Your task to perform on an android device: set the stopwatch Image 0: 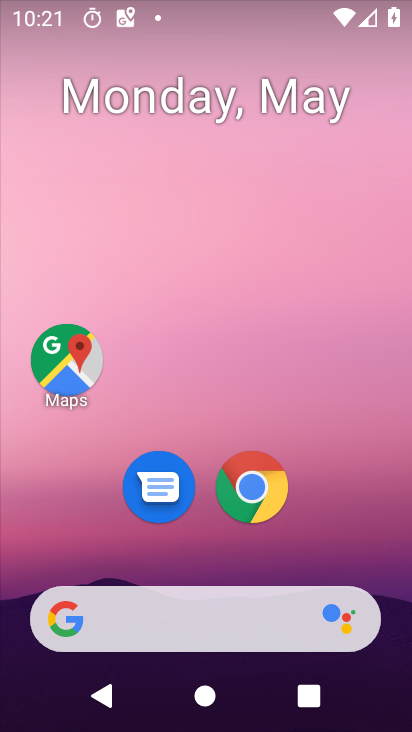
Step 0: drag from (334, 523) to (335, 59)
Your task to perform on an android device: set the stopwatch Image 1: 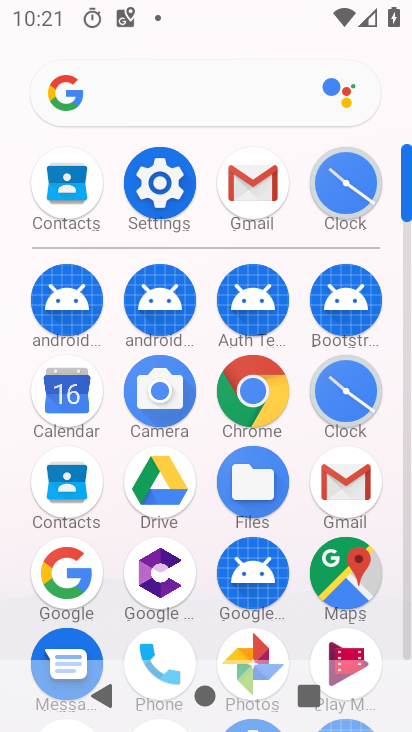
Step 1: click (334, 398)
Your task to perform on an android device: set the stopwatch Image 2: 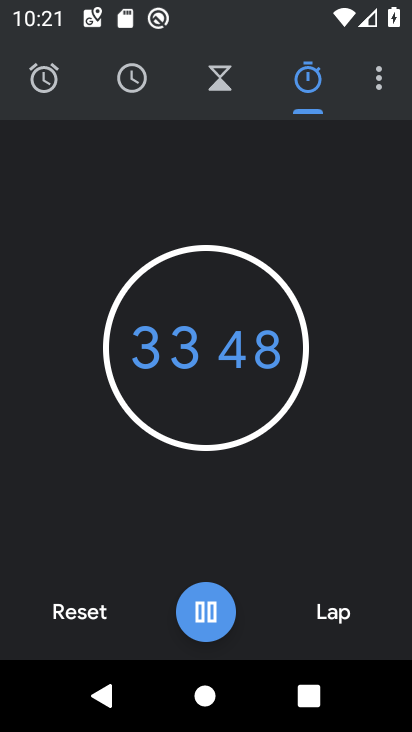
Step 2: click (77, 612)
Your task to perform on an android device: set the stopwatch Image 3: 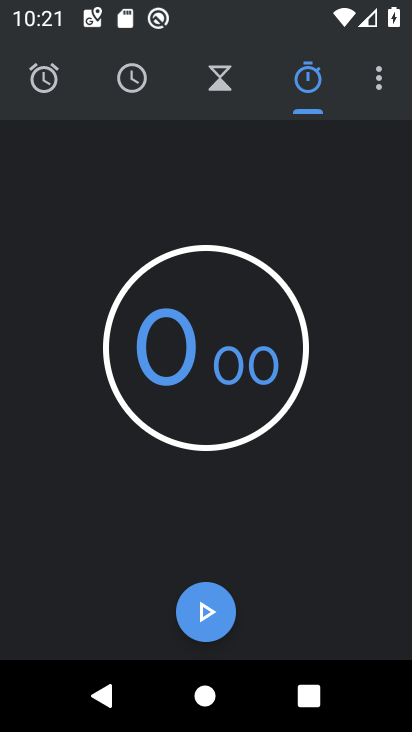
Step 3: click (177, 616)
Your task to perform on an android device: set the stopwatch Image 4: 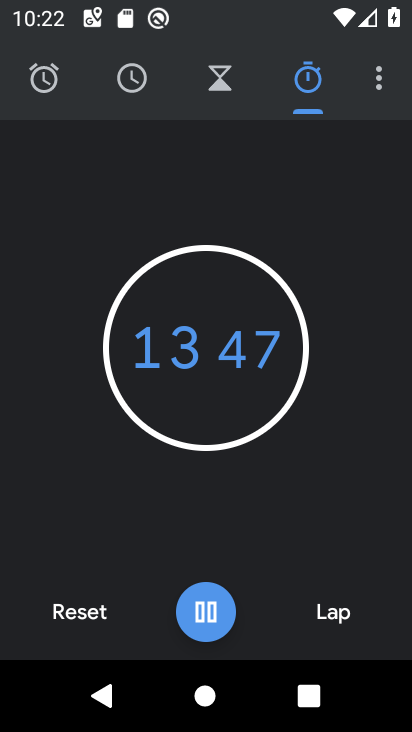
Step 4: task complete